Your task to perform on an android device: stop showing notifications on the lock screen Image 0: 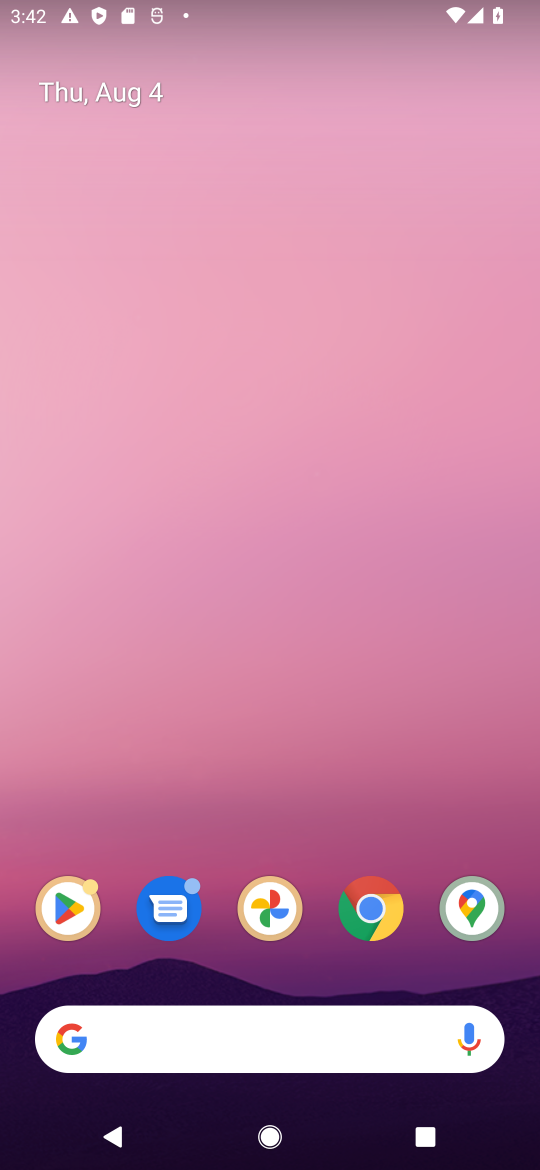
Step 0: drag from (82, 967) to (6, 100)
Your task to perform on an android device: stop showing notifications on the lock screen Image 1: 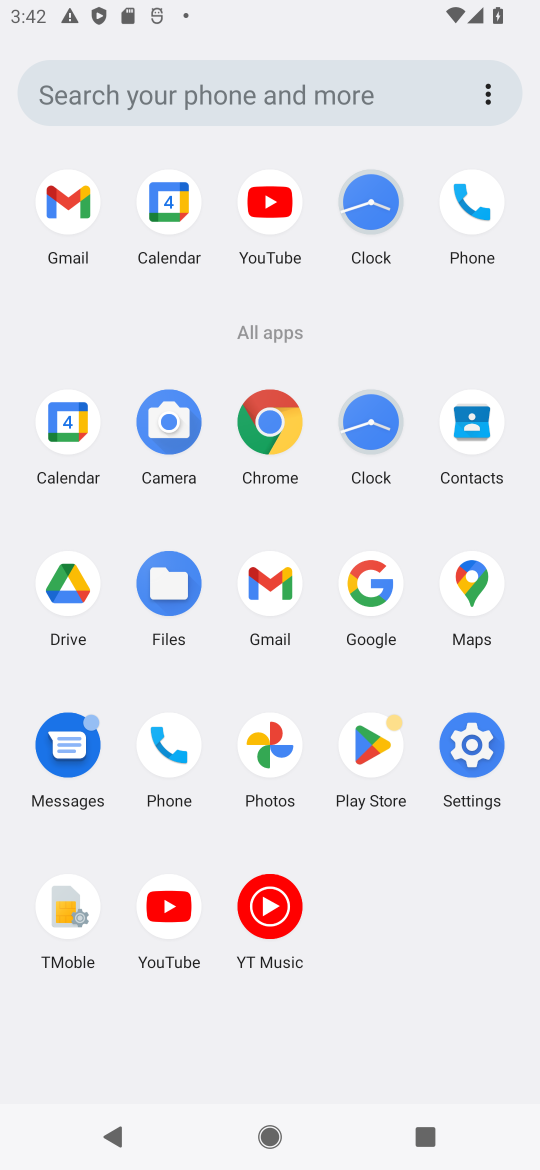
Step 1: click (458, 757)
Your task to perform on an android device: stop showing notifications on the lock screen Image 2: 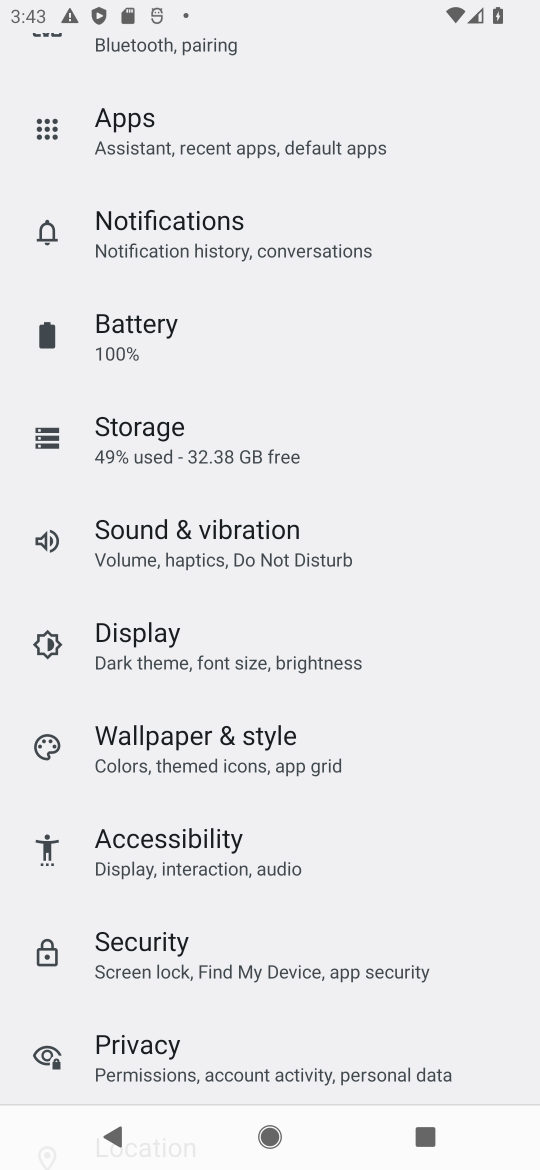
Step 2: click (178, 208)
Your task to perform on an android device: stop showing notifications on the lock screen Image 3: 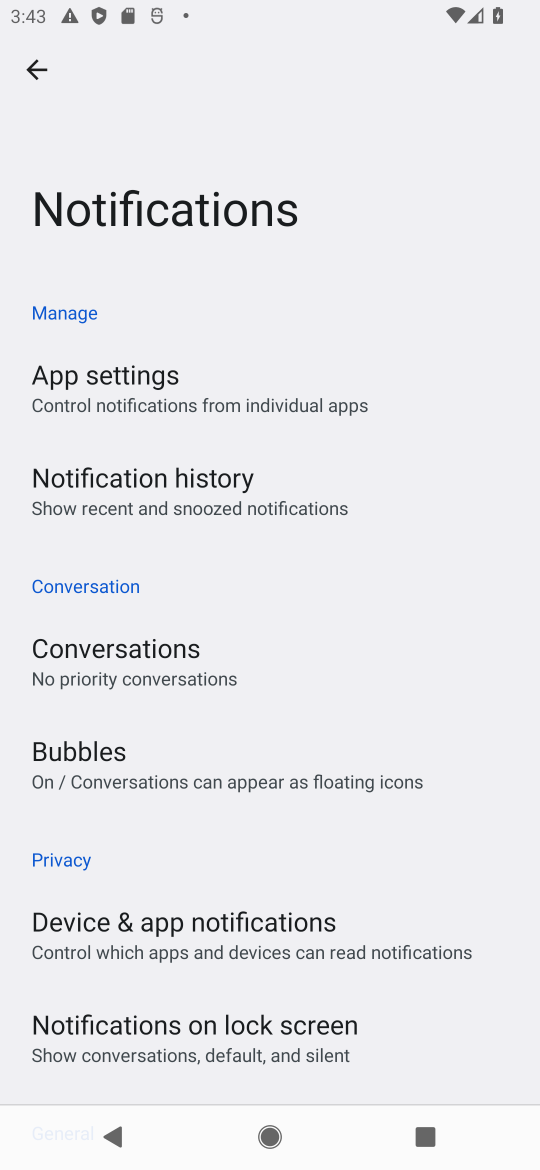
Step 3: drag from (266, 929) to (248, 486)
Your task to perform on an android device: stop showing notifications on the lock screen Image 4: 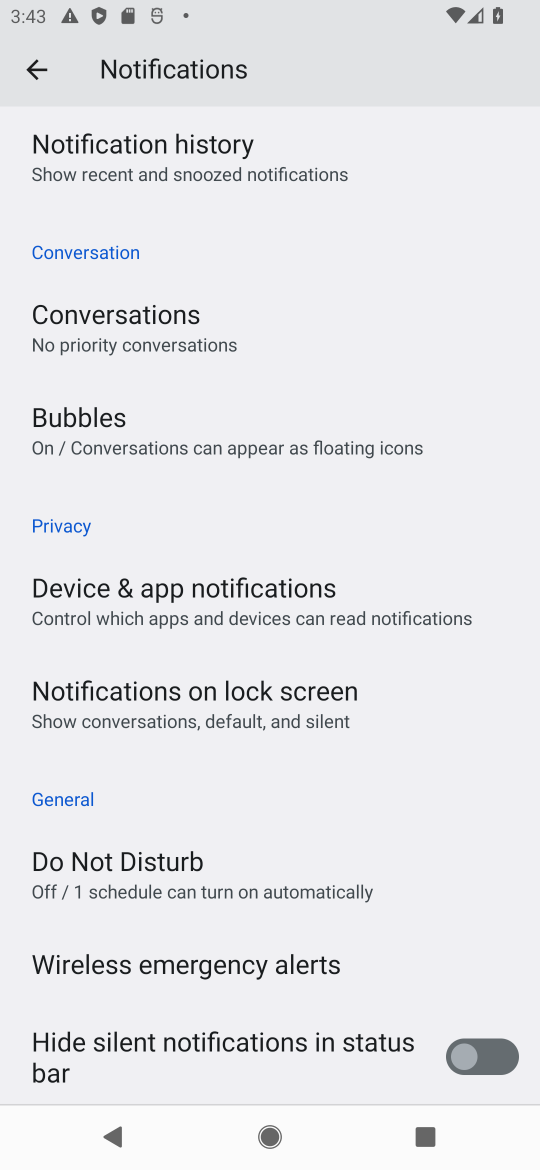
Step 4: click (242, 731)
Your task to perform on an android device: stop showing notifications on the lock screen Image 5: 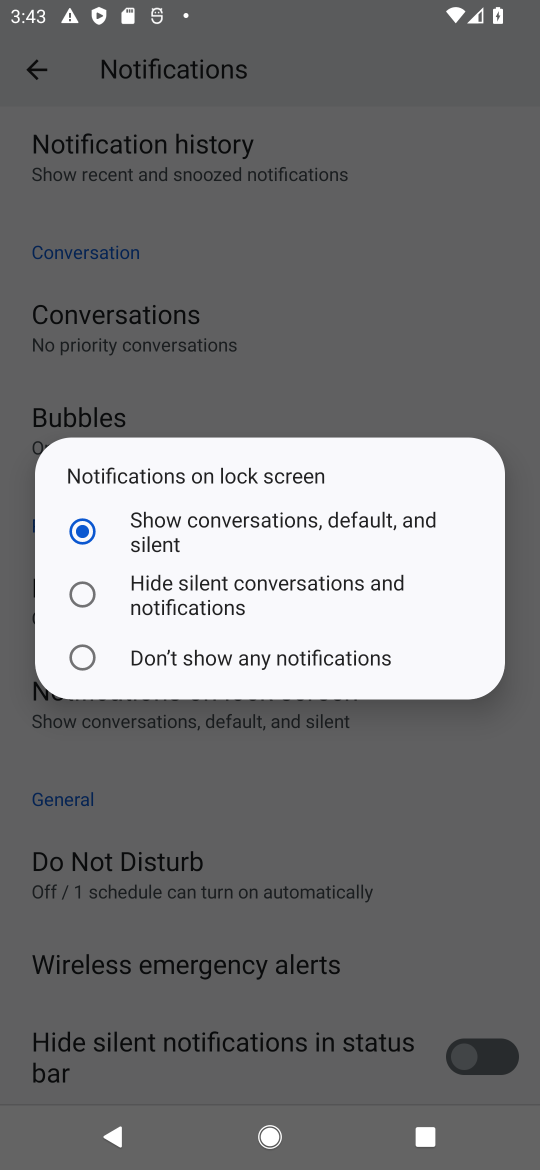
Step 5: click (202, 655)
Your task to perform on an android device: stop showing notifications on the lock screen Image 6: 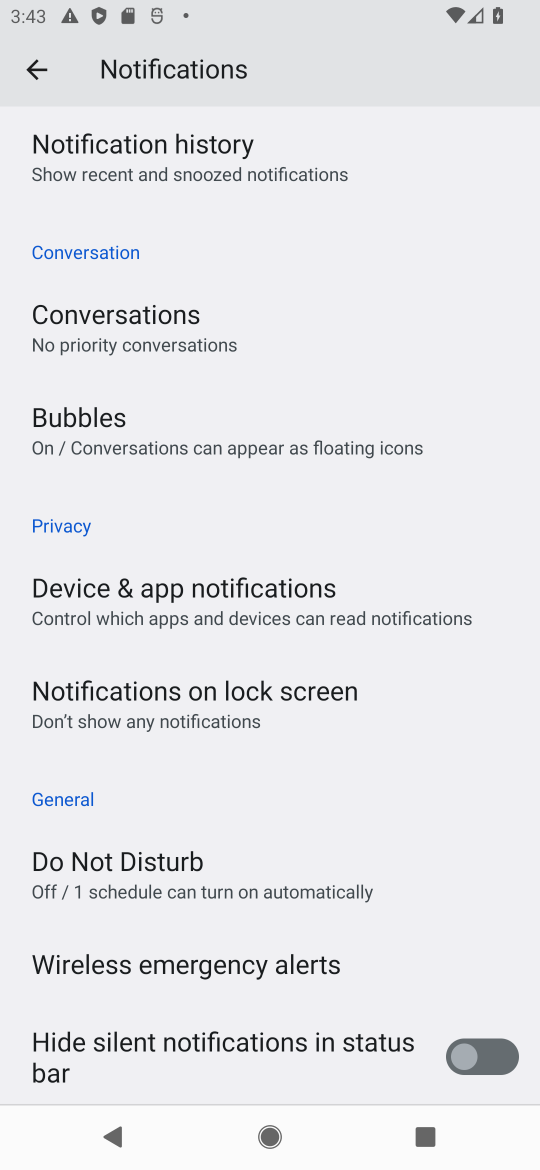
Step 6: task complete